Your task to perform on an android device: change alarm snooze length Image 0: 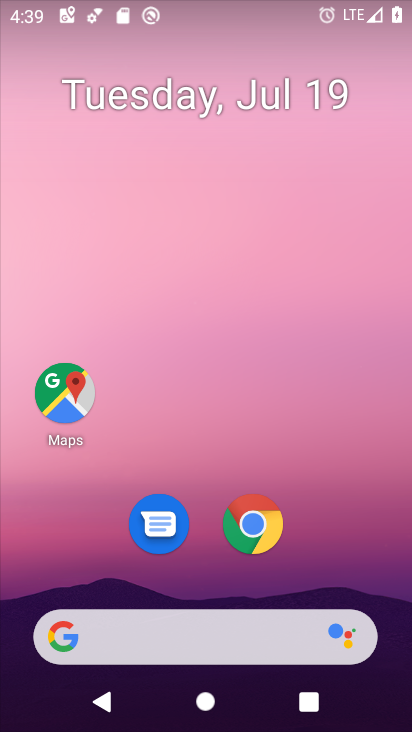
Step 0: drag from (325, 553) to (330, 40)
Your task to perform on an android device: change alarm snooze length Image 1: 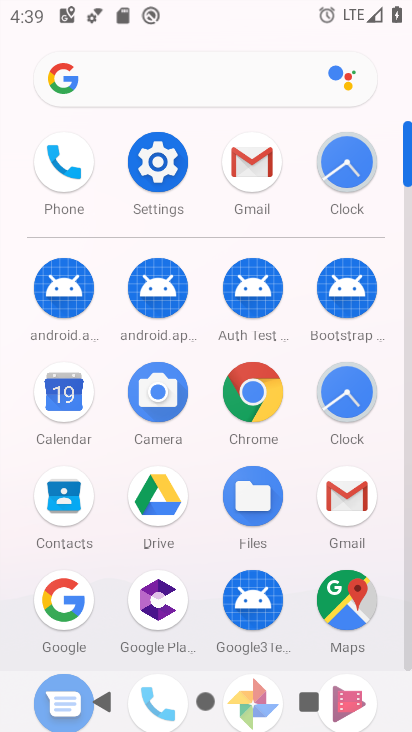
Step 1: click (348, 162)
Your task to perform on an android device: change alarm snooze length Image 2: 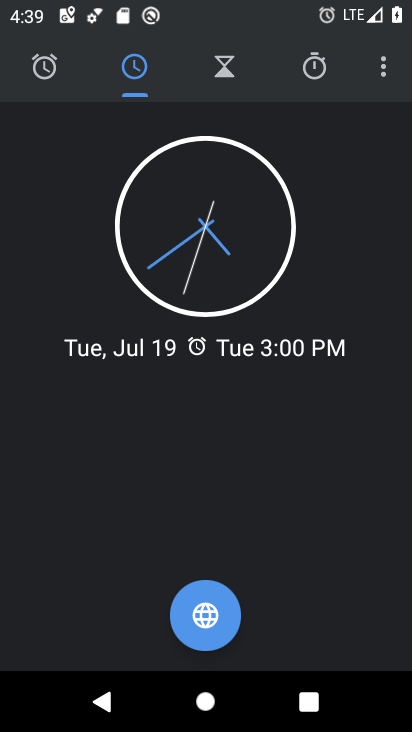
Step 2: click (382, 75)
Your task to perform on an android device: change alarm snooze length Image 3: 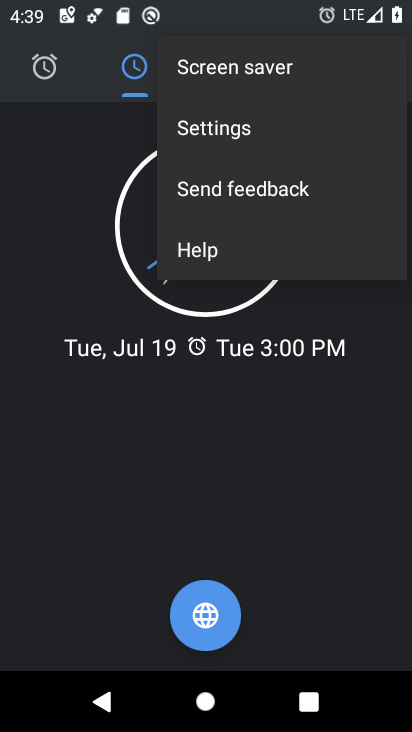
Step 3: click (297, 133)
Your task to perform on an android device: change alarm snooze length Image 4: 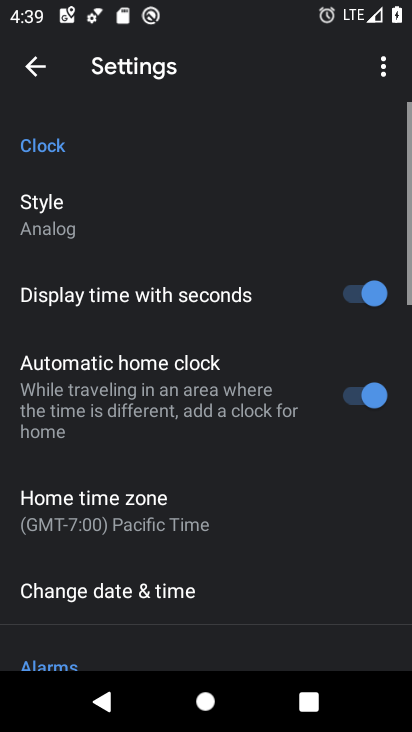
Step 4: drag from (267, 196) to (272, 65)
Your task to perform on an android device: change alarm snooze length Image 5: 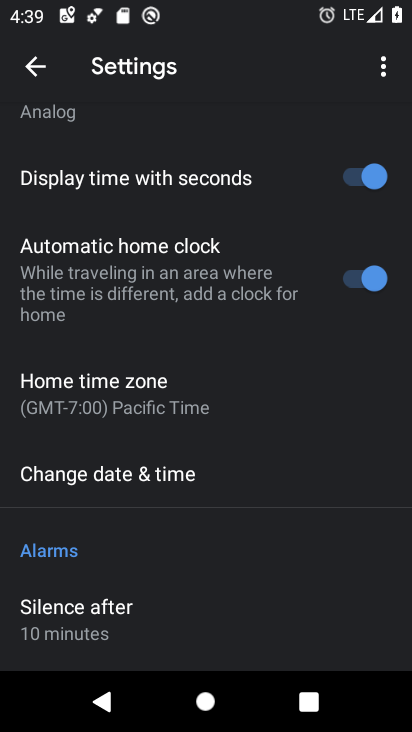
Step 5: drag from (166, 530) to (202, 168)
Your task to perform on an android device: change alarm snooze length Image 6: 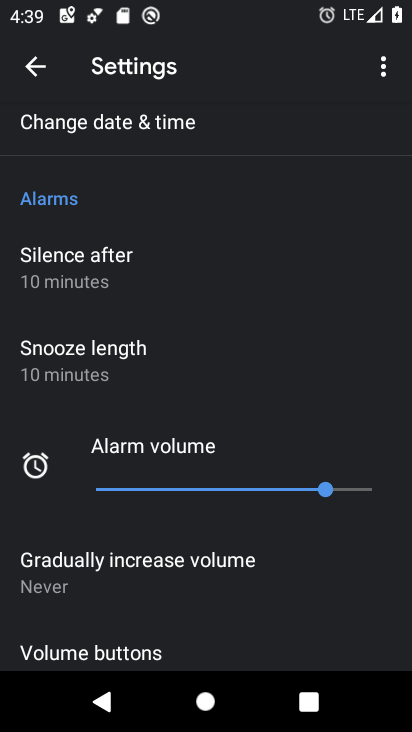
Step 6: click (107, 357)
Your task to perform on an android device: change alarm snooze length Image 7: 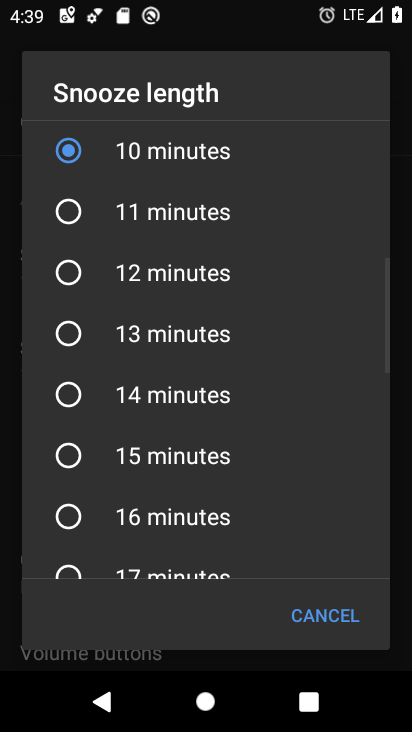
Step 7: click (77, 280)
Your task to perform on an android device: change alarm snooze length Image 8: 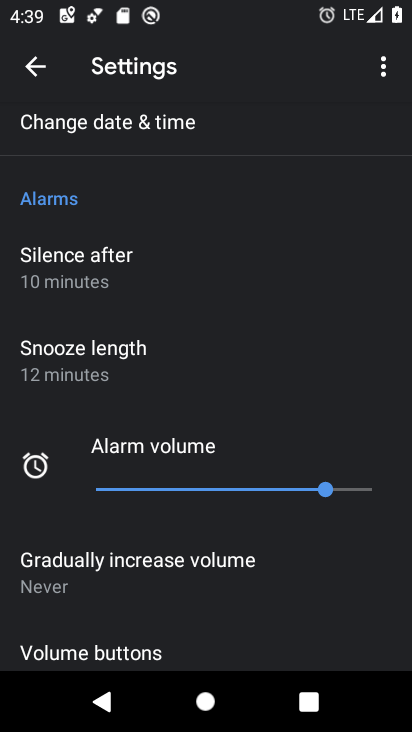
Step 8: task complete